Your task to perform on an android device: Play the last video I watched on Youtube Image 0: 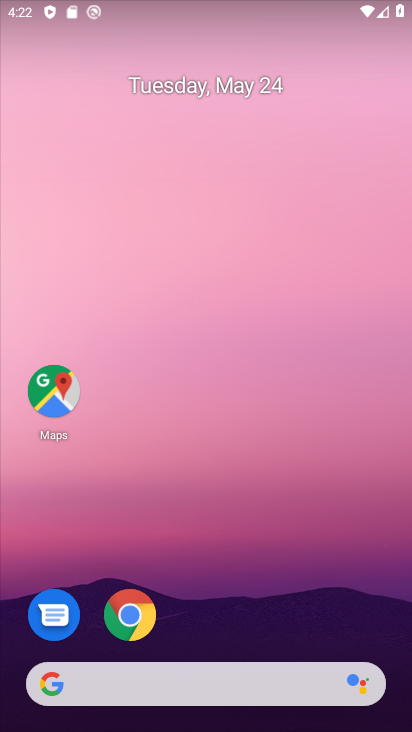
Step 0: click (50, 400)
Your task to perform on an android device: Play the last video I watched on Youtube Image 1: 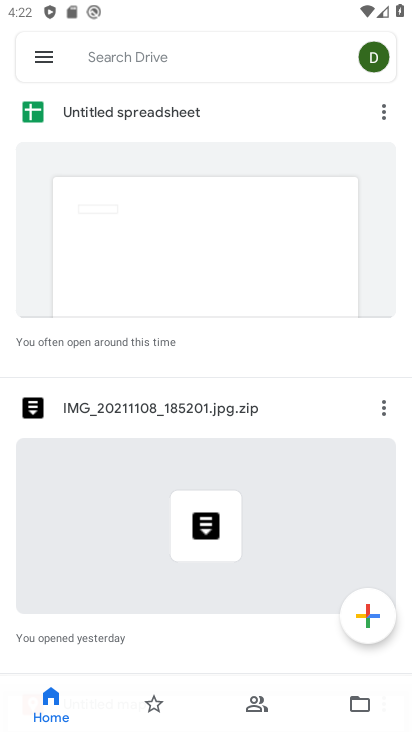
Step 1: press home button
Your task to perform on an android device: Play the last video I watched on Youtube Image 2: 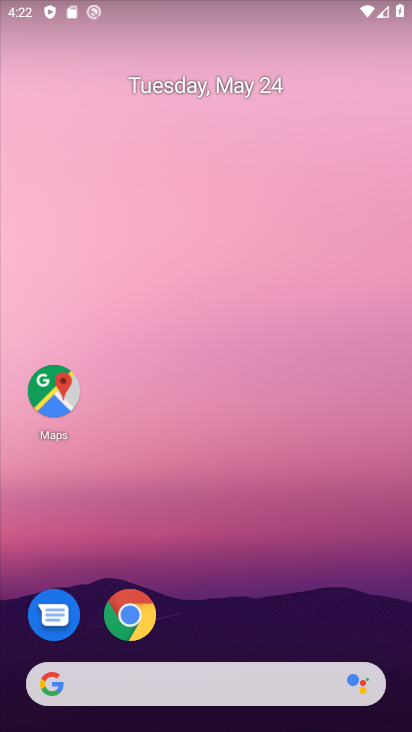
Step 2: drag from (235, 626) to (247, 45)
Your task to perform on an android device: Play the last video I watched on Youtube Image 3: 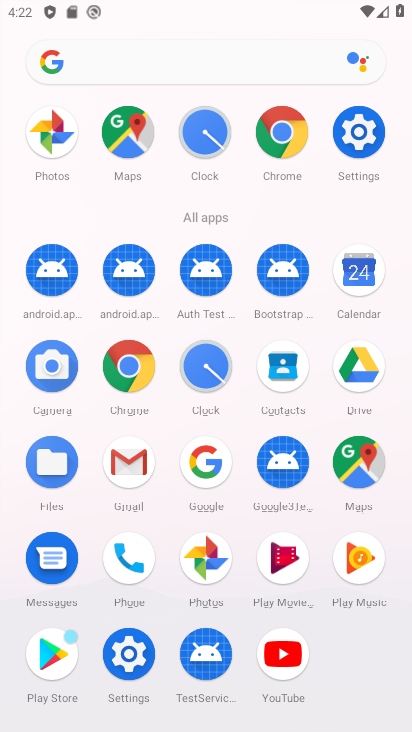
Step 3: click (288, 651)
Your task to perform on an android device: Play the last video I watched on Youtube Image 4: 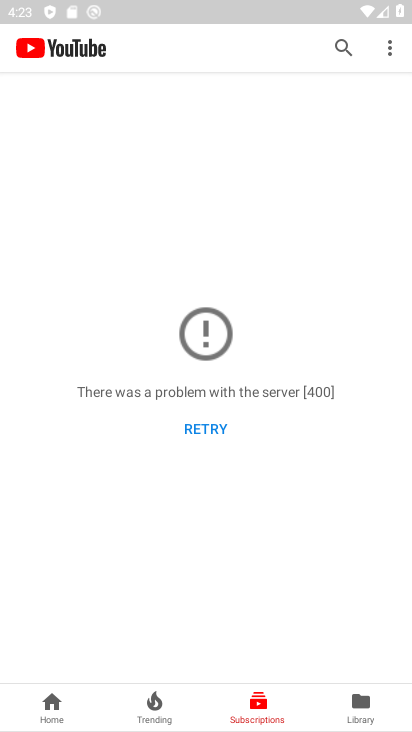
Step 4: click (358, 697)
Your task to perform on an android device: Play the last video I watched on Youtube Image 5: 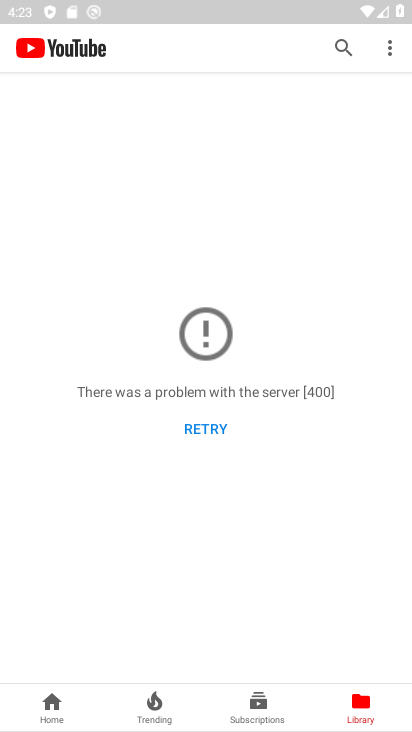
Step 5: task complete